Your task to perform on an android device: Open Reddit.com Image 0: 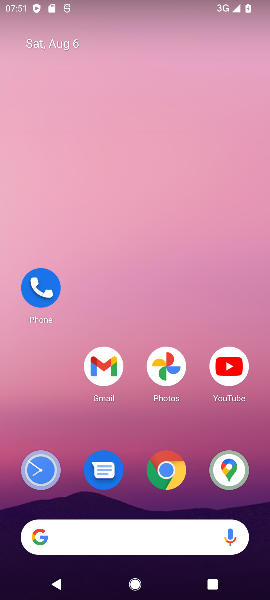
Step 0: press home button
Your task to perform on an android device: Open Reddit.com Image 1: 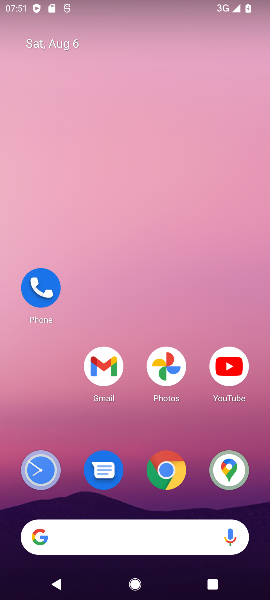
Step 1: drag from (153, 494) to (153, 205)
Your task to perform on an android device: Open Reddit.com Image 2: 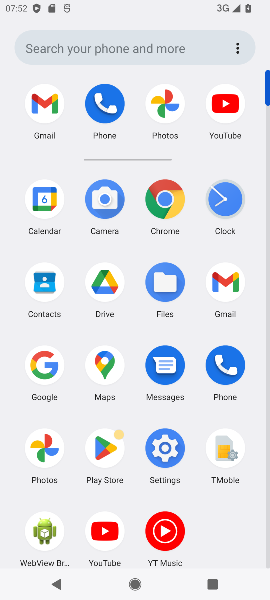
Step 2: click (170, 215)
Your task to perform on an android device: Open Reddit.com Image 3: 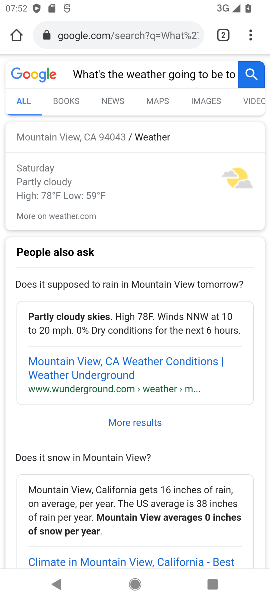
Step 3: click (141, 36)
Your task to perform on an android device: Open Reddit.com Image 4: 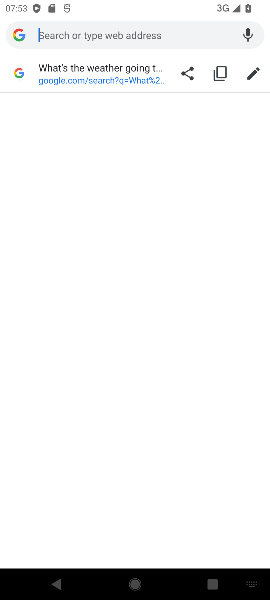
Step 4: type "Reddit.com"
Your task to perform on an android device: Open Reddit.com Image 5: 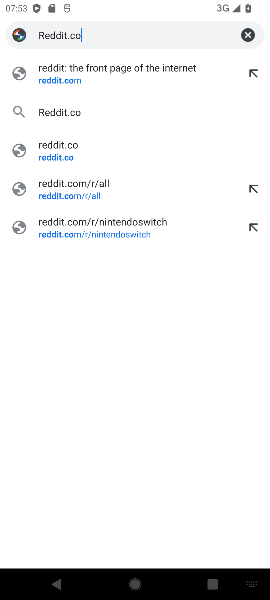
Step 5: type ""
Your task to perform on an android device: Open Reddit.com Image 6: 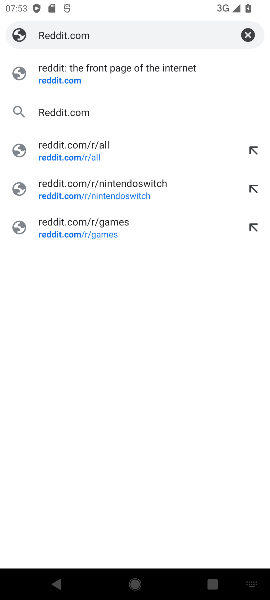
Step 6: click (120, 68)
Your task to perform on an android device: Open Reddit.com Image 7: 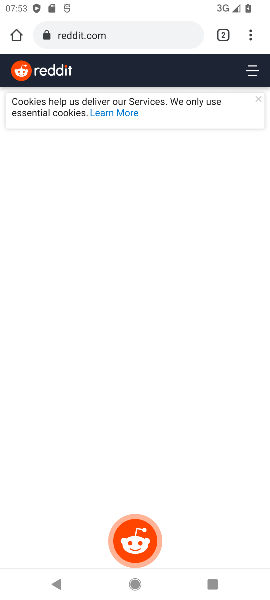
Step 7: task complete